Your task to perform on an android device: Open my contact list Image 0: 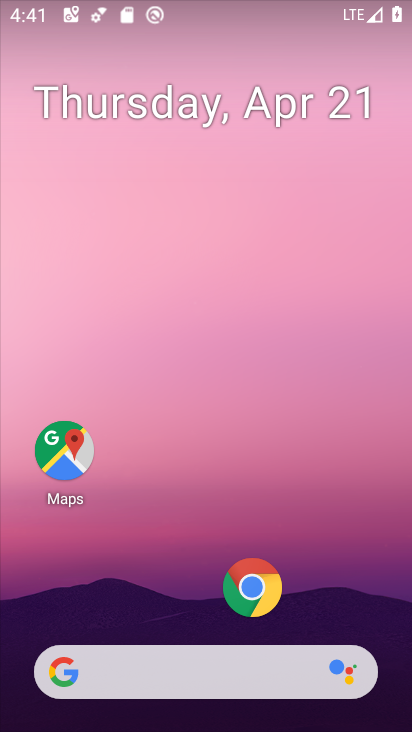
Step 0: drag from (119, 596) to (223, 93)
Your task to perform on an android device: Open my contact list Image 1: 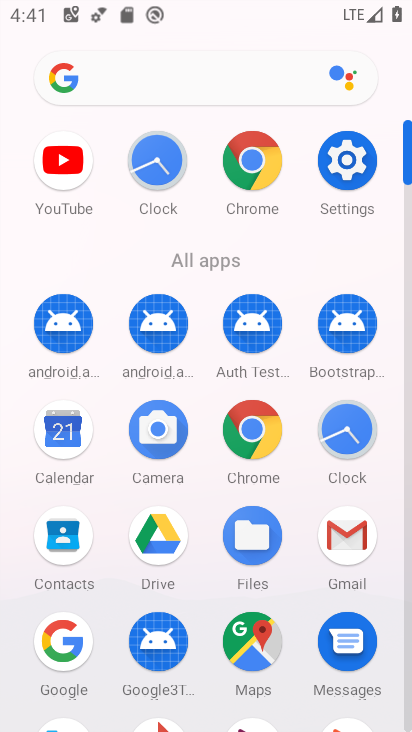
Step 1: click (63, 554)
Your task to perform on an android device: Open my contact list Image 2: 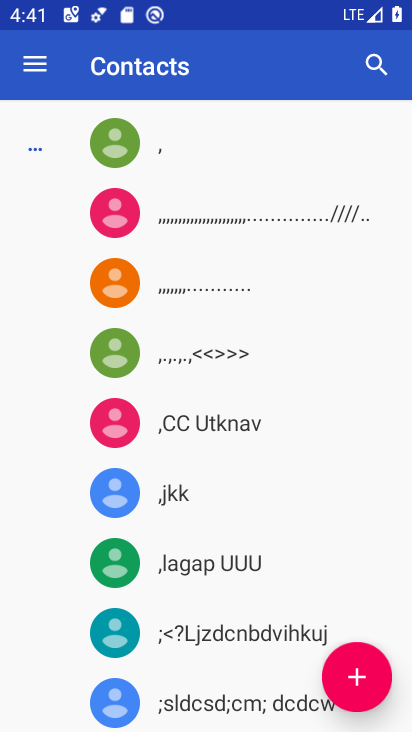
Step 2: task complete